Your task to perform on an android device: Go to Android settings Image 0: 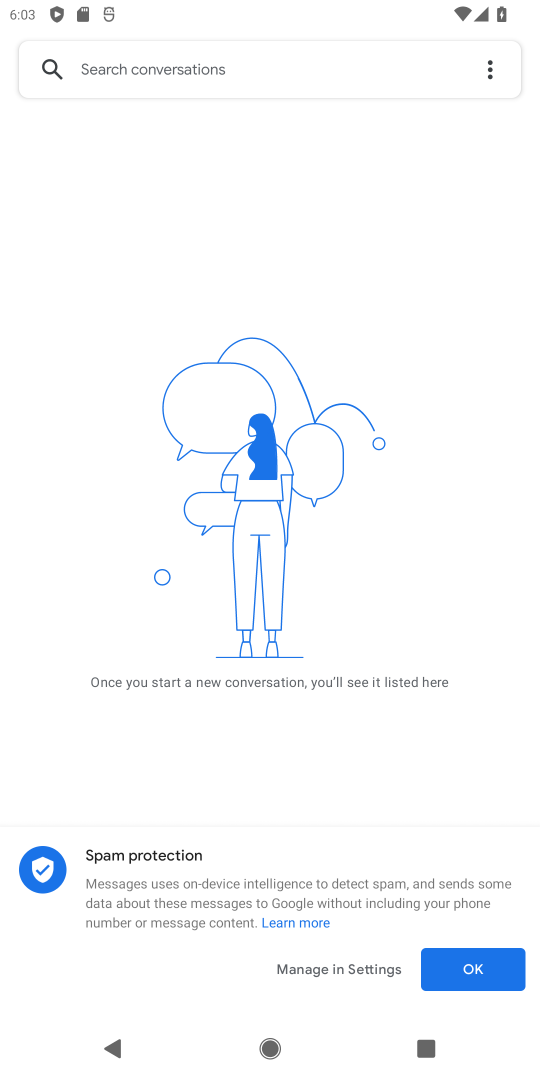
Step 0: press home button
Your task to perform on an android device: Go to Android settings Image 1: 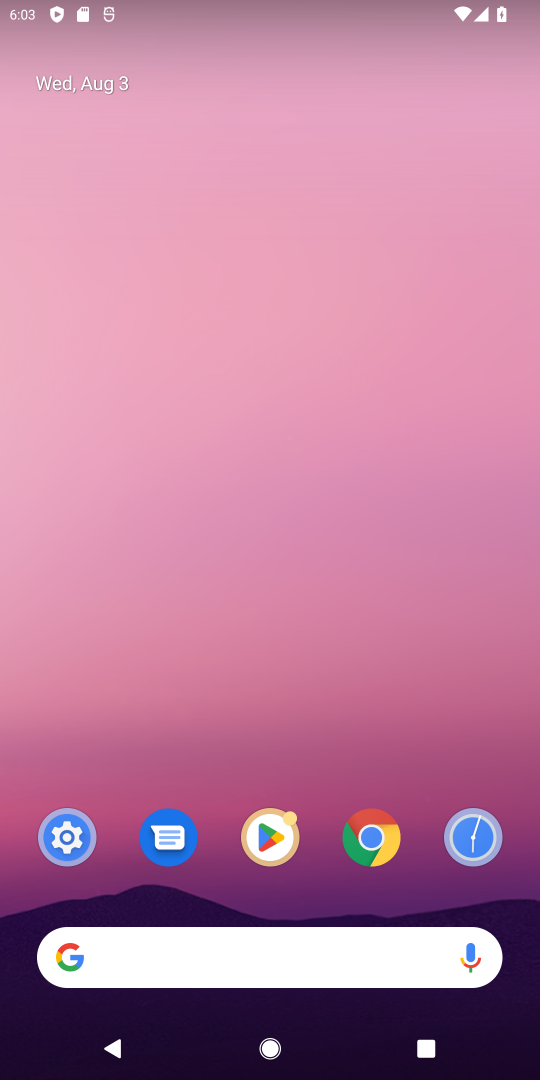
Step 1: drag from (293, 528) to (264, 68)
Your task to perform on an android device: Go to Android settings Image 2: 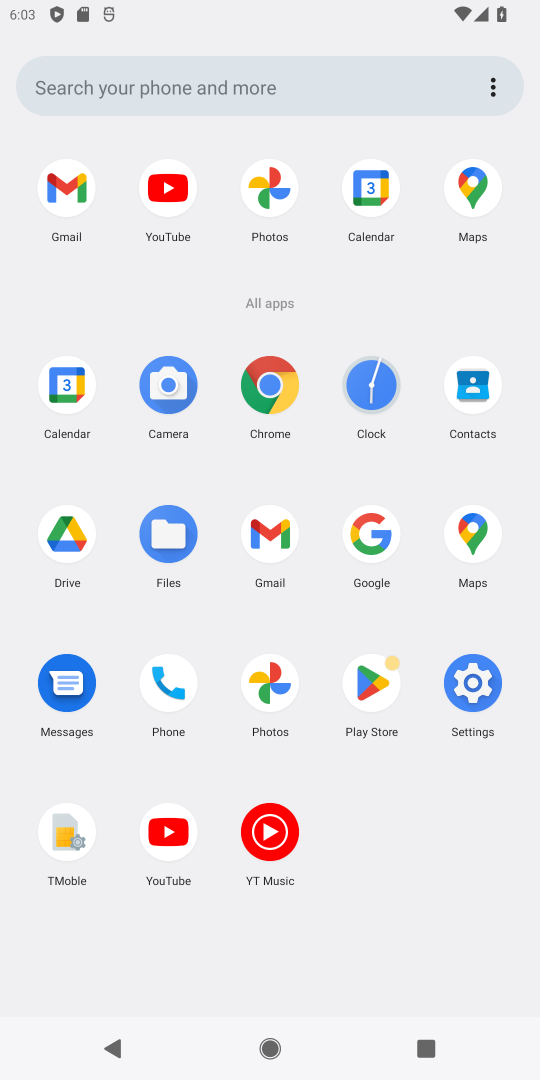
Step 2: click (455, 683)
Your task to perform on an android device: Go to Android settings Image 3: 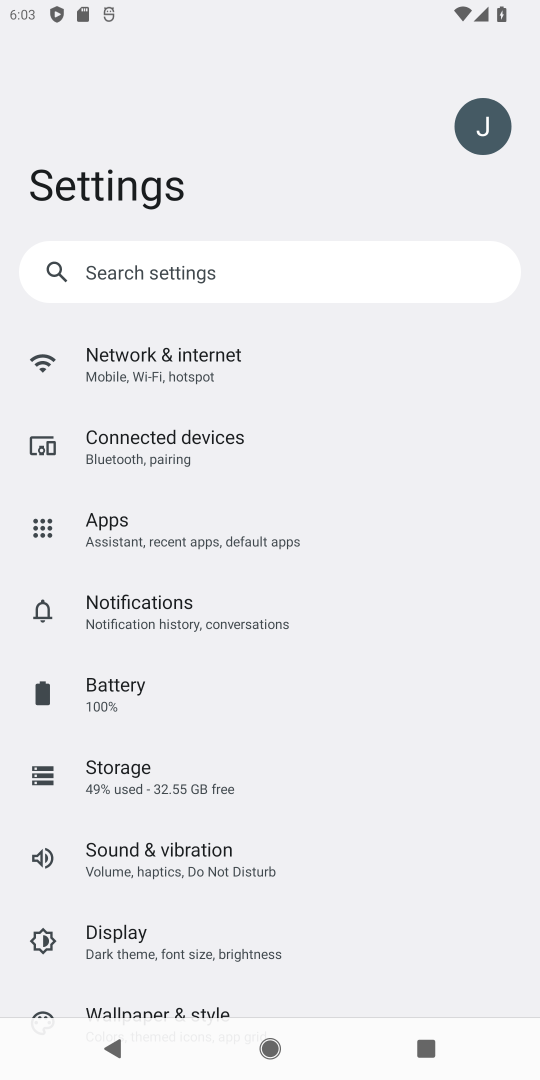
Step 3: task complete